Your task to perform on an android device: Open the web browser Image 0: 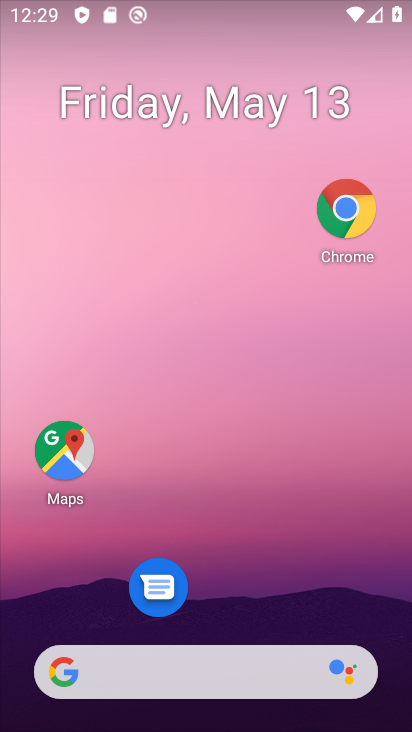
Step 0: click (342, 216)
Your task to perform on an android device: Open the web browser Image 1: 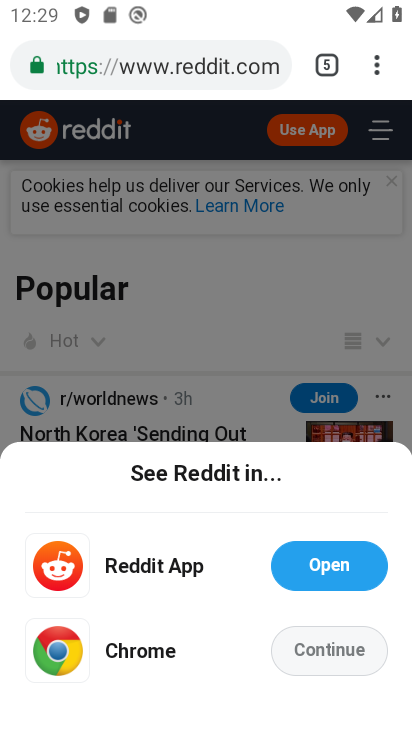
Step 1: task complete